Your task to perform on an android device: Go to battery settings Image 0: 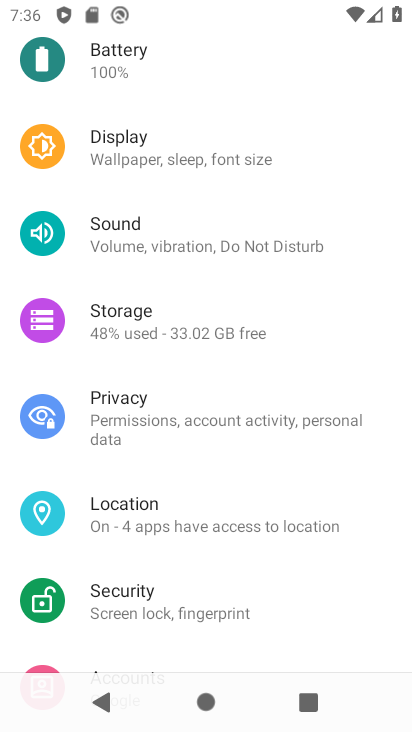
Step 0: press home button
Your task to perform on an android device: Go to battery settings Image 1: 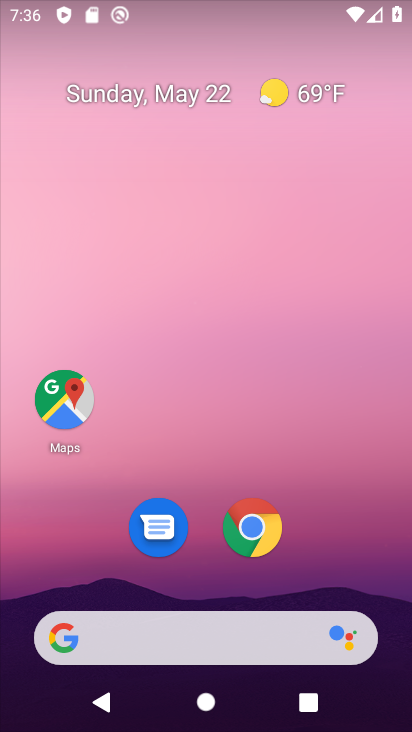
Step 1: drag from (203, 577) to (200, 35)
Your task to perform on an android device: Go to battery settings Image 2: 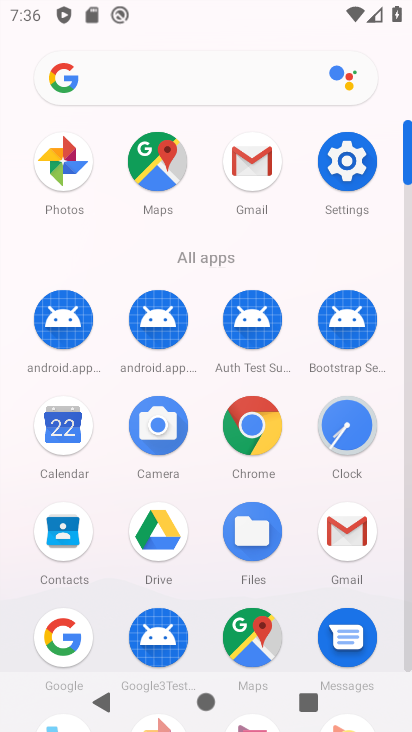
Step 2: click (347, 162)
Your task to perform on an android device: Go to battery settings Image 3: 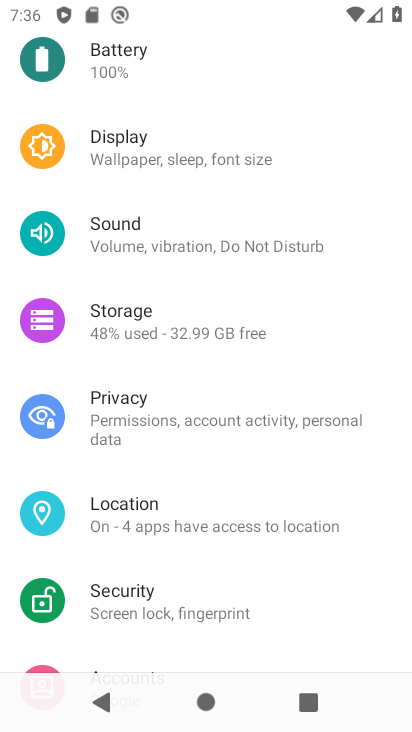
Step 3: click (126, 65)
Your task to perform on an android device: Go to battery settings Image 4: 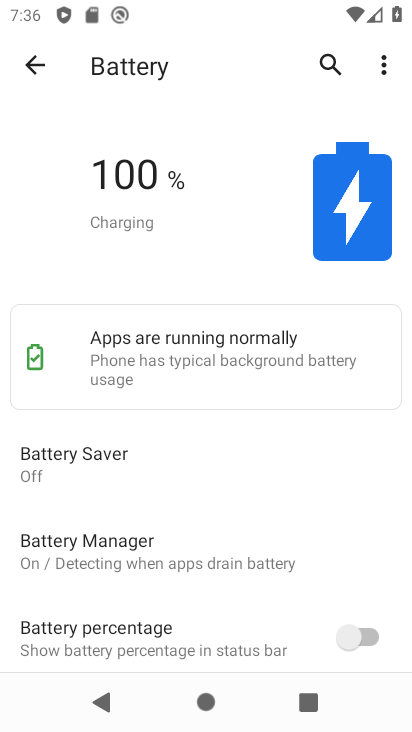
Step 4: drag from (152, 573) to (151, 117)
Your task to perform on an android device: Go to battery settings Image 5: 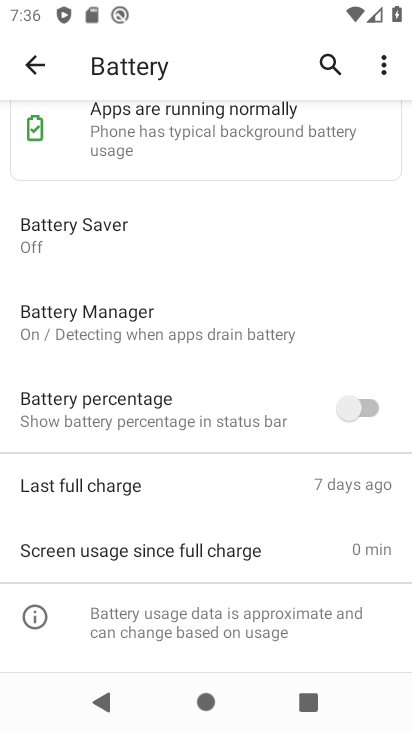
Step 5: drag from (149, 507) to (158, 229)
Your task to perform on an android device: Go to battery settings Image 6: 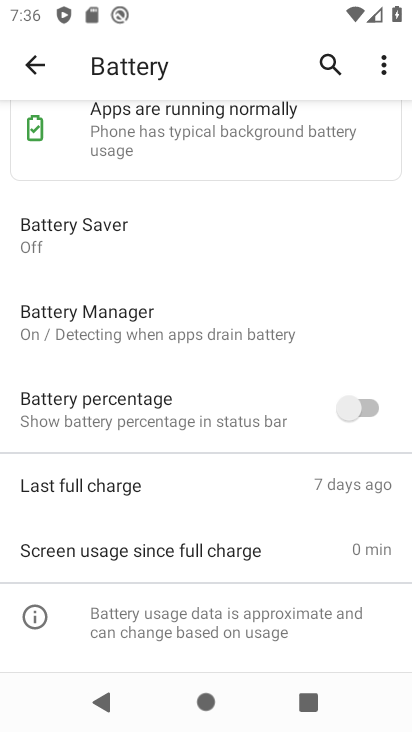
Step 6: click (377, 59)
Your task to perform on an android device: Go to battery settings Image 7: 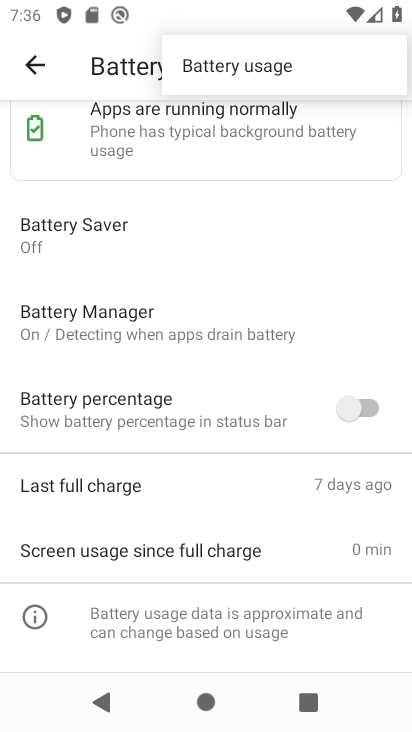
Step 7: task complete